Your task to perform on an android device: What is the news today? Image 0: 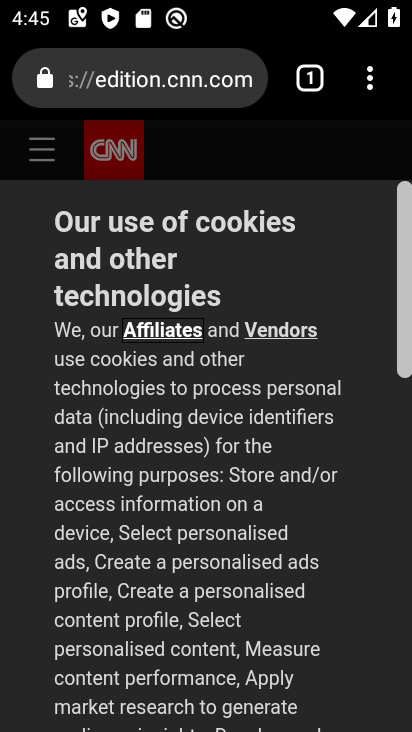
Step 0: press home button
Your task to perform on an android device: What is the news today? Image 1: 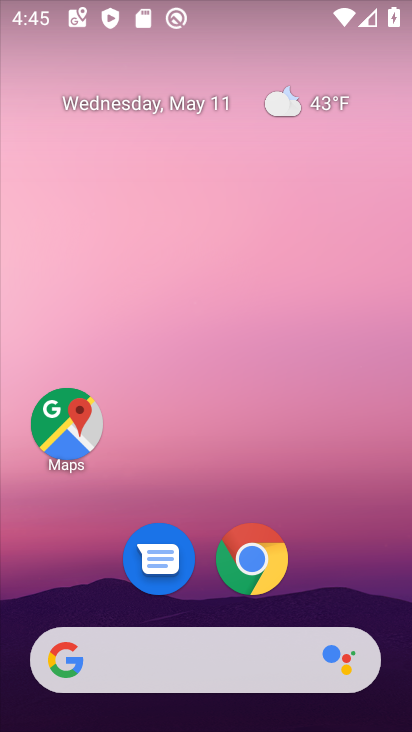
Step 1: drag from (294, 391) to (231, 196)
Your task to perform on an android device: What is the news today? Image 2: 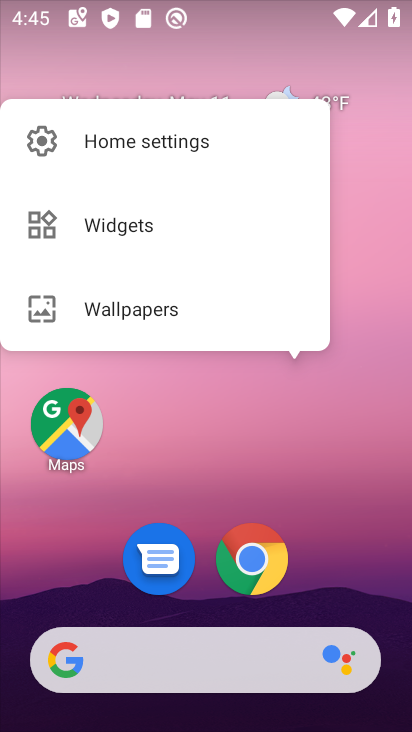
Step 2: click (328, 173)
Your task to perform on an android device: What is the news today? Image 3: 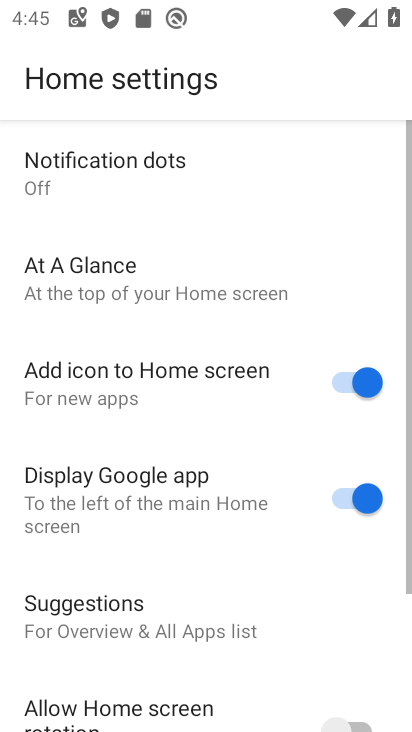
Step 3: click (296, 413)
Your task to perform on an android device: What is the news today? Image 4: 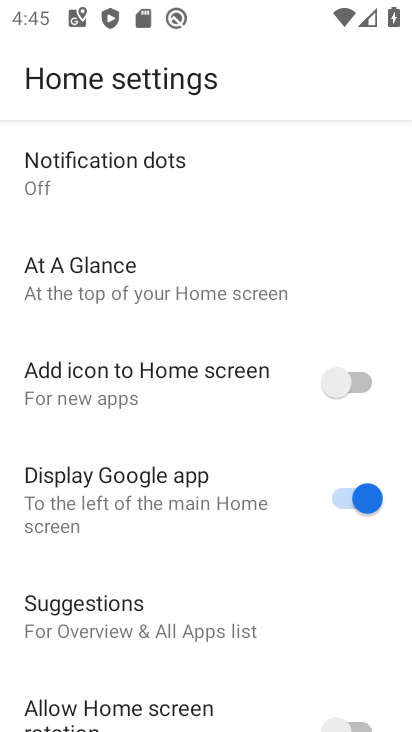
Step 4: press home button
Your task to perform on an android device: What is the news today? Image 5: 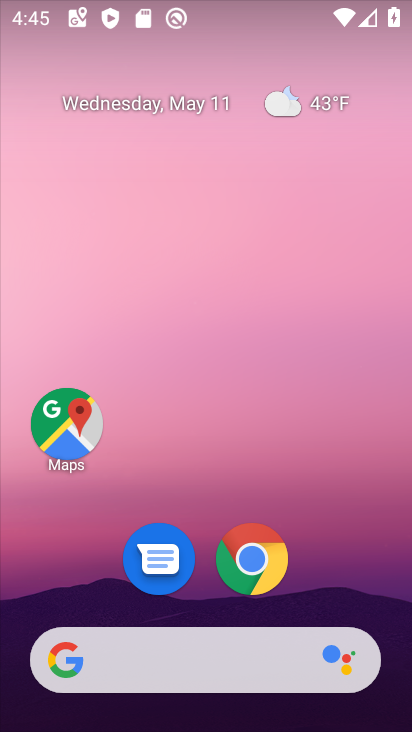
Step 5: drag from (309, 518) to (319, 35)
Your task to perform on an android device: What is the news today? Image 6: 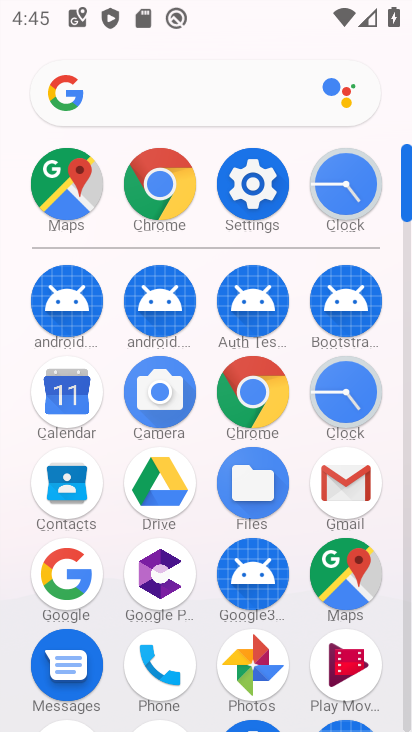
Step 6: click (60, 578)
Your task to perform on an android device: What is the news today? Image 7: 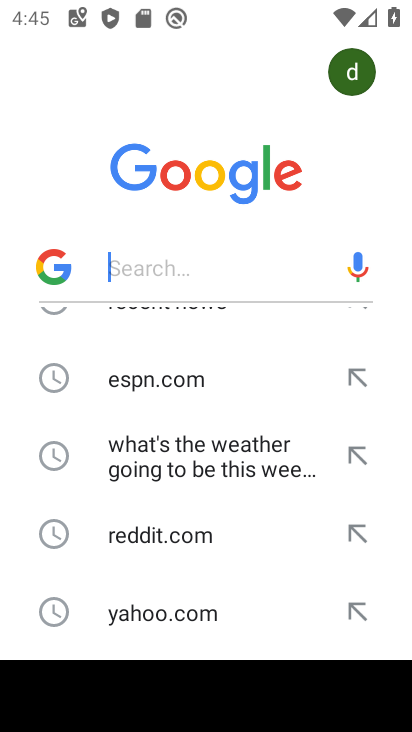
Step 7: click (153, 274)
Your task to perform on an android device: What is the news today? Image 8: 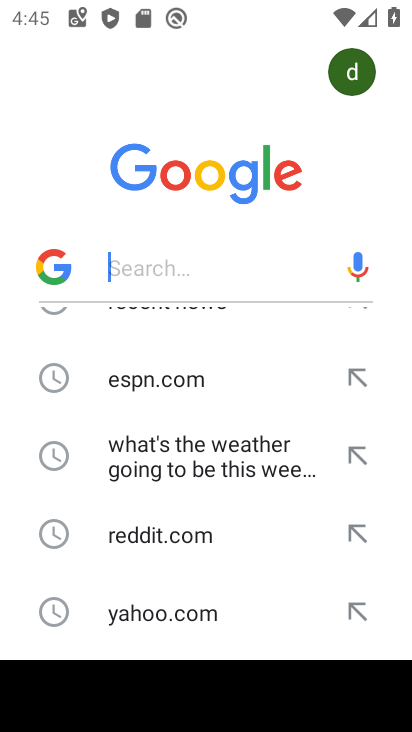
Step 8: type "news today"
Your task to perform on an android device: What is the news today? Image 9: 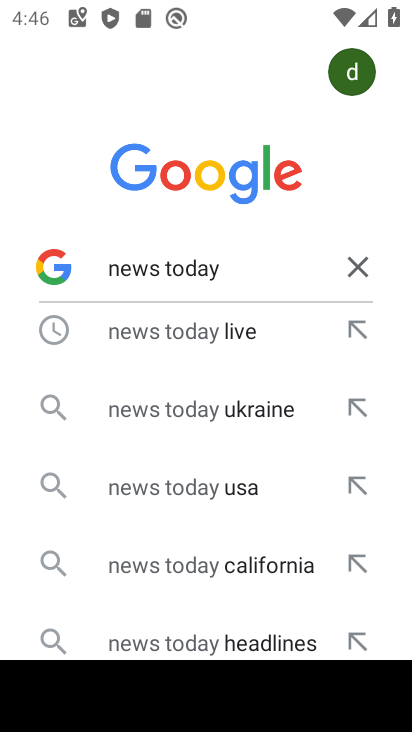
Step 9: click (150, 347)
Your task to perform on an android device: What is the news today? Image 10: 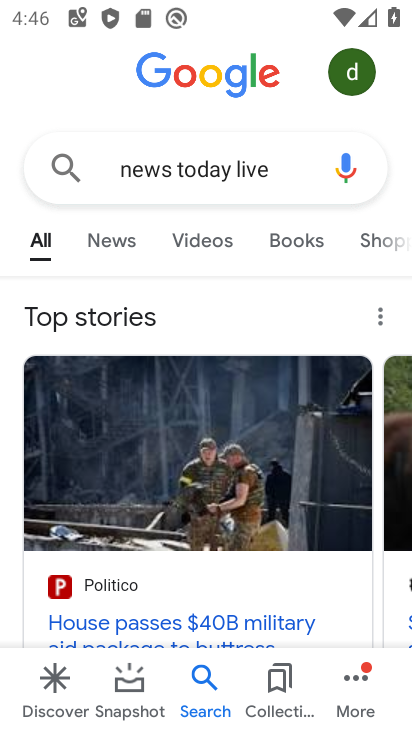
Step 10: task complete